Your task to perform on an android device: turn on improve location accuracy Image 0: 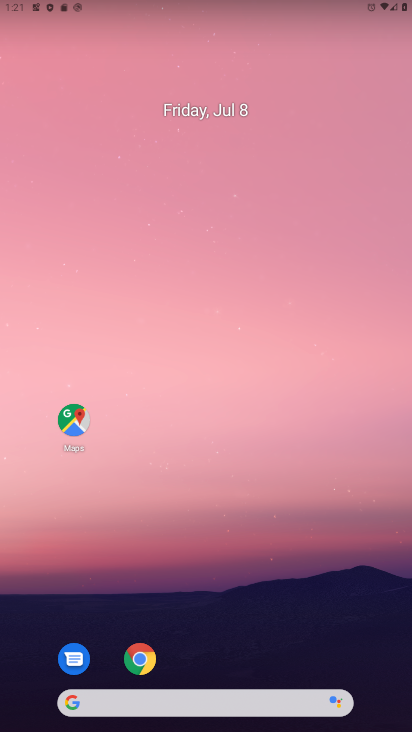
Step 0: drag from (239, 607) to (166, 89)
Your task to perform on an android device: turn on improve location accuracy Image 1: 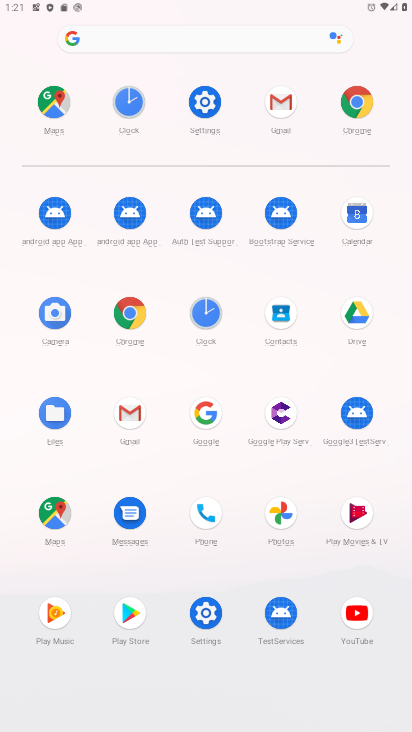
Step 1: click (209, 102)
Your task to perform on an android device: turn on improve location accuracy Image 2: 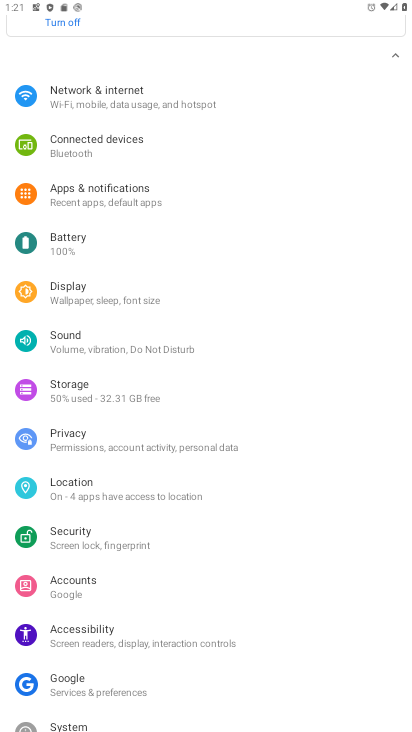
Step 2: click (72, 480)
Your task to perform on an android device: turn on improve location accuracy Image 3: 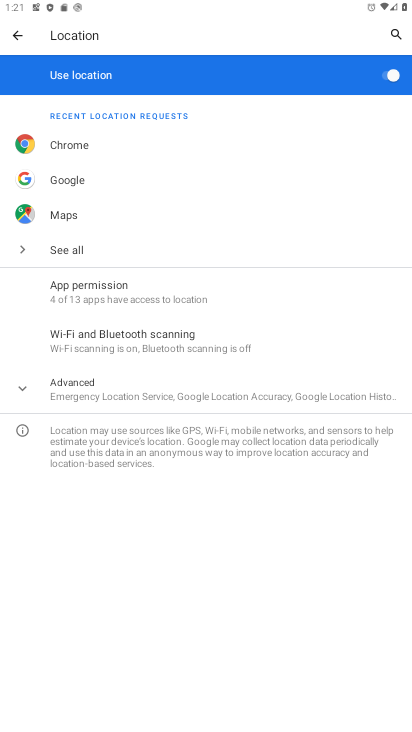
Step 3: click (23, 388)
Your task to perform on an android device: turn on improve location accuracy Image 4: 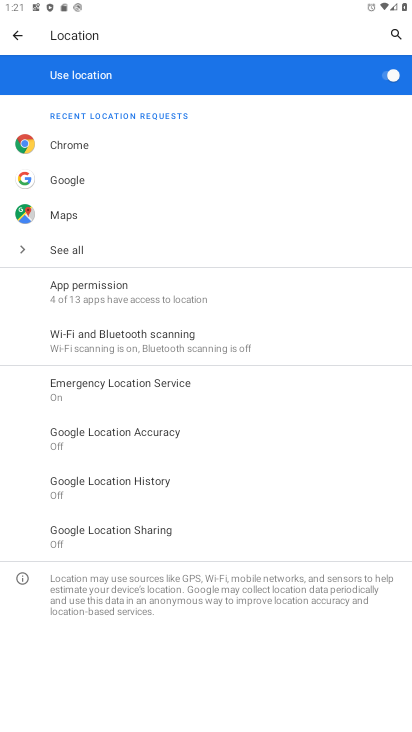
Step 4: click (124, 428)
Your task to perform on an android device: turn on improve location accuracy Image 5: 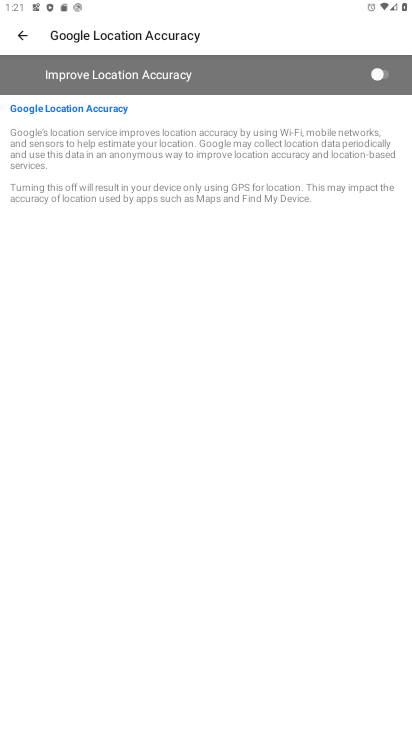
Step 5: click (384, 80)
Your task to perform on an android device: turn on improve location accuracy Image 6: 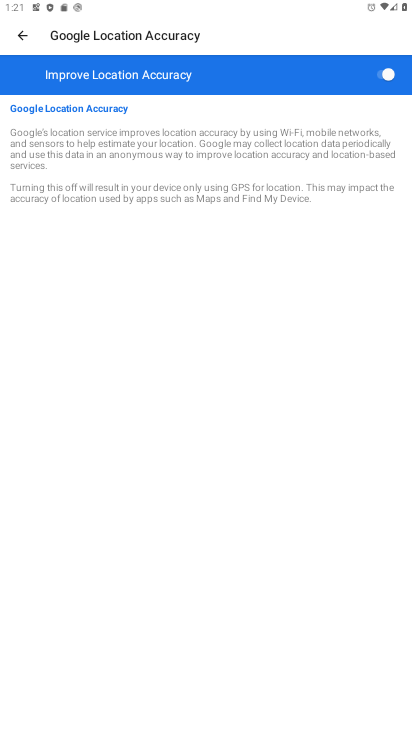
Step 6: task complete